Your task to perform on an android device: Open calendar and show me the third week of next month Image 0: 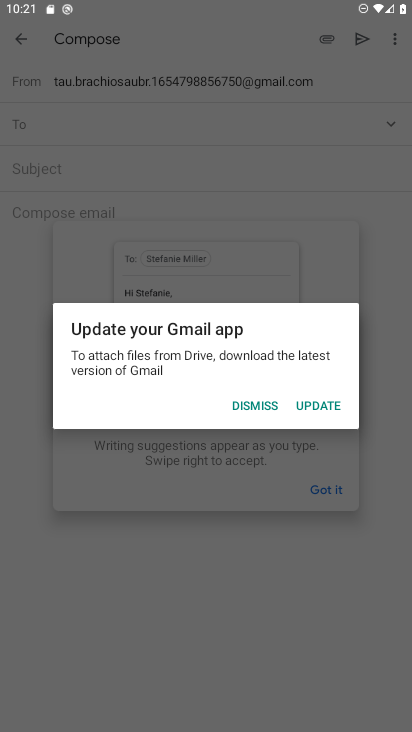
Step 0: click (341, 491)
Your task to perform on an android device: Open calendar and show me the third week of next month Image 1: 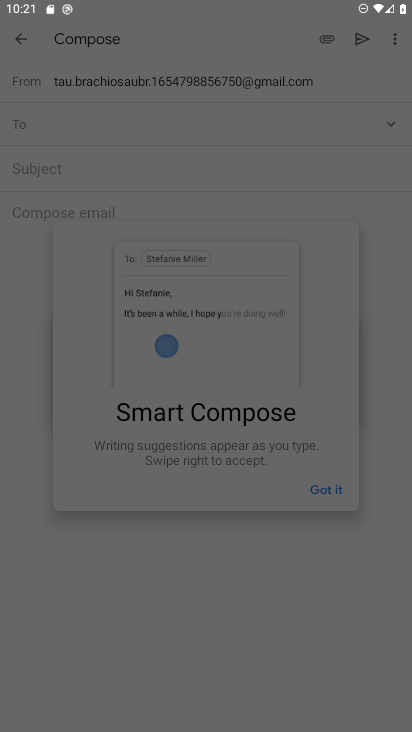
Step 1: press home button
Your task to perform on an android device: Open calendar and show me the third week of next month Image 2: 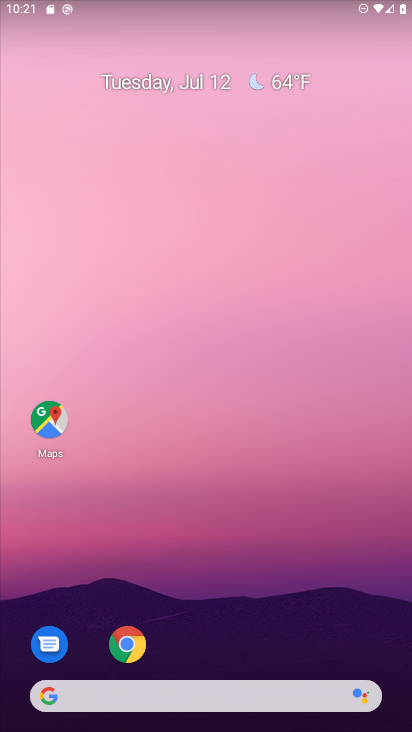
Step 2: drag from (256, 648) to (286, 205)
Your task to perform on an android device: Open calendar and show me the third week of next month Image 3: 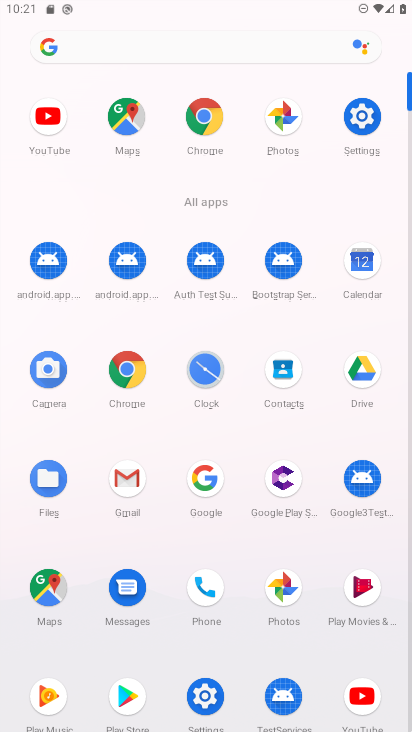
Step 3: click (363, 283)
Your task to perform on an android device: Open calendar and show me the third week of next month Image 4: 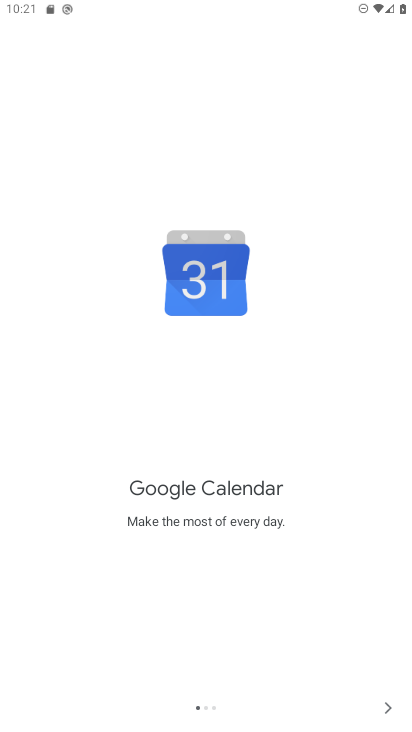
Step 4: click (388, 697)
Your task to perform on an android device: Open calendar and show me the third week of next month Image 5: 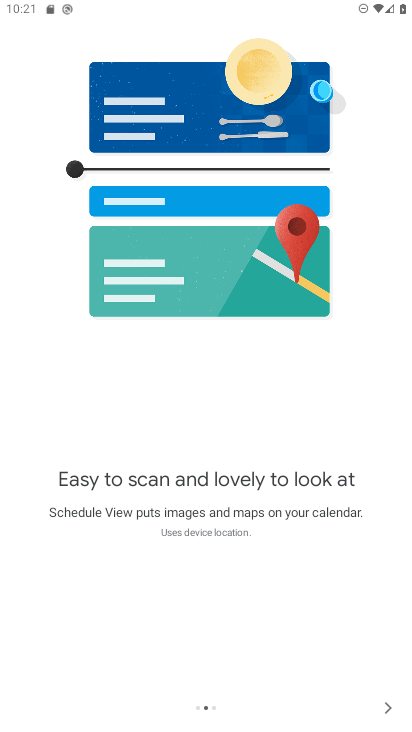
Step 5: click (388, 697)
Your task to perform on an android device: Open calendar and show me the third week of next month Image 6: 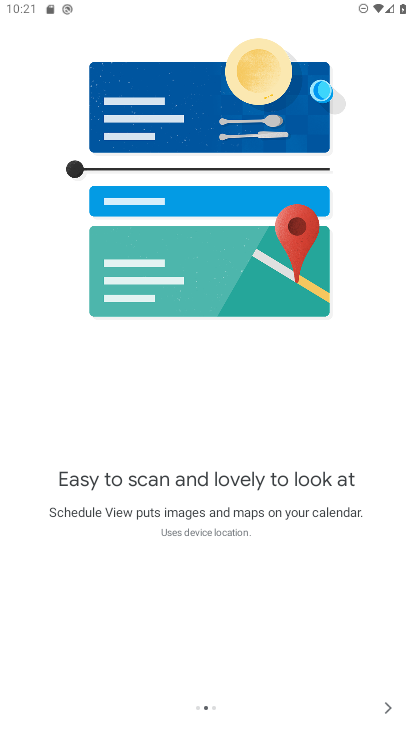
Step 6: click (388, 697)
Your task to perform on an android device: Open calendar and show me the third week of next month Image 7: 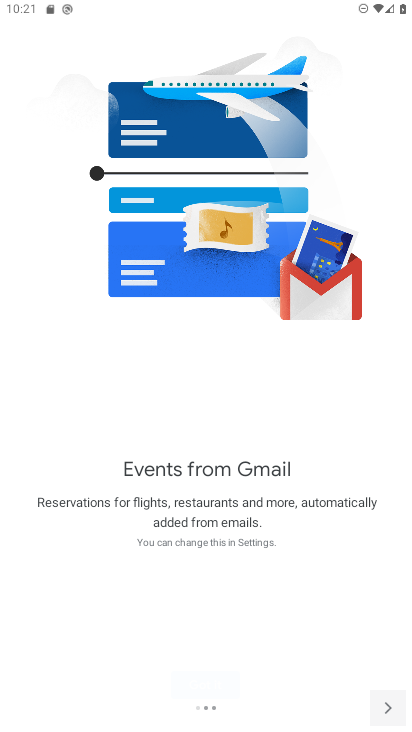
Step 7: click (388, 697)
Your task to perform on an android device: Open calendar and show me the third week of next month Image 8: 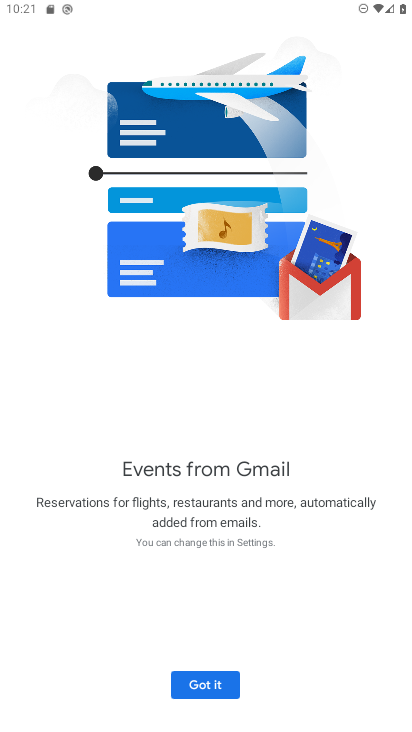
Step 8: click (233, 683)
Your task to perform on an android device: Open calendar and show me the third week of next month Image 9: 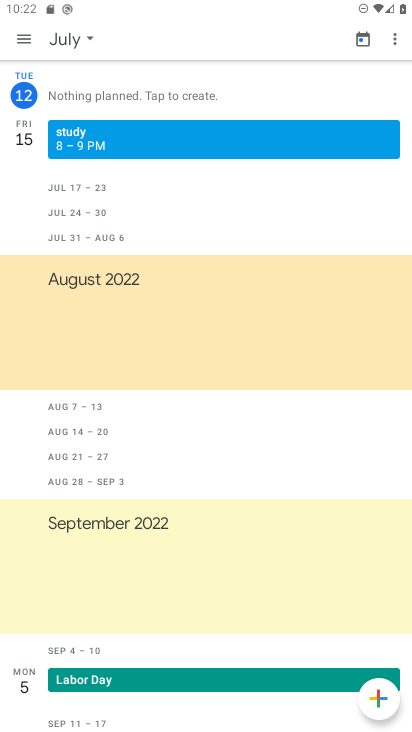
Step 9: click (93, 30)
Your task to perform on an android device: Open calendar and show me the third week of next month Image 10: 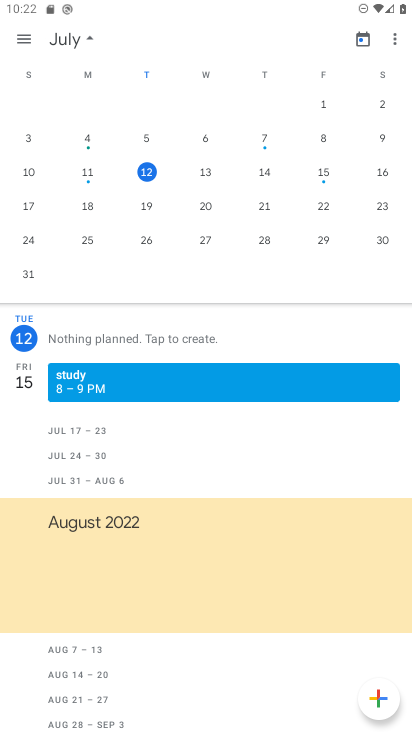
Step 10: drag from (368, 216) to (6, 217)
Your task to perform on an android device: Open calendar and show me the third week of next month Image 11: 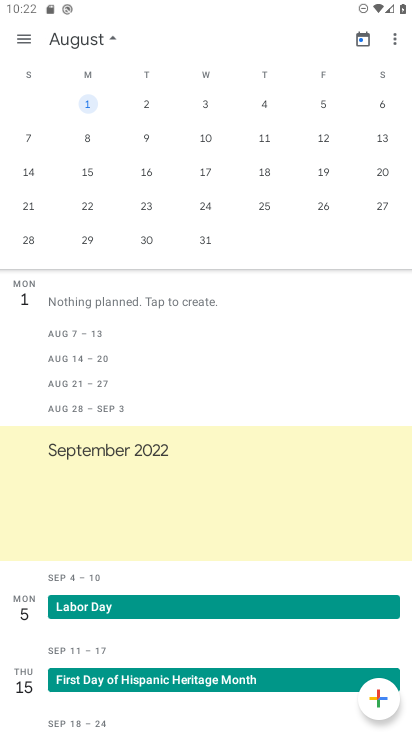
Step 11: click (151, 198)
Your task to perform on an android device: Open calendar and show me the third week of next month Image 12: 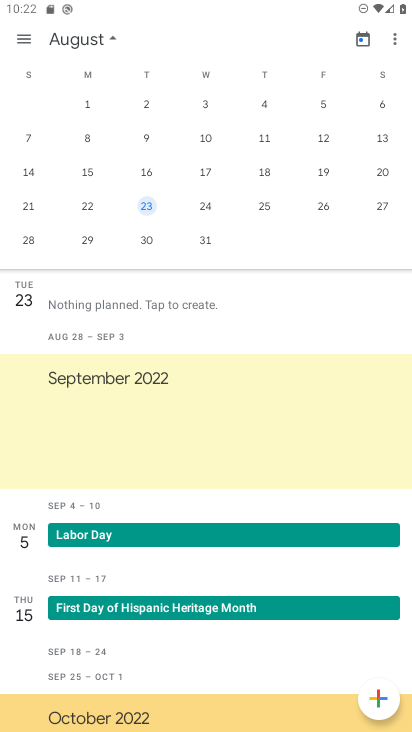
Step 12: task complete